Your task to perform on an android device: see creations saved in the google photos Image 0: 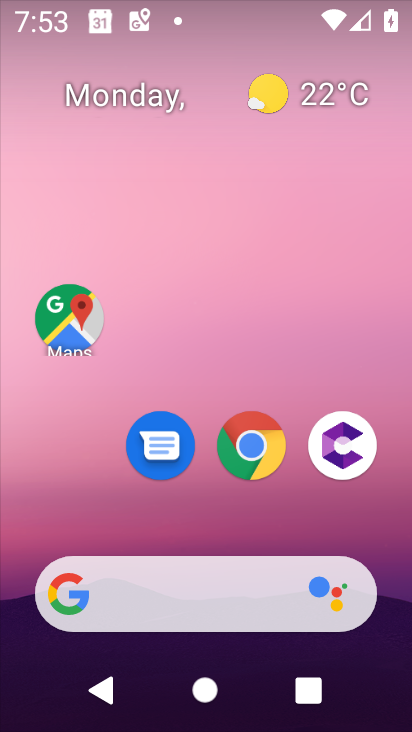
Step 0: press home button
Your task to perform on an android device: see creations saved in the google photos Image 1: 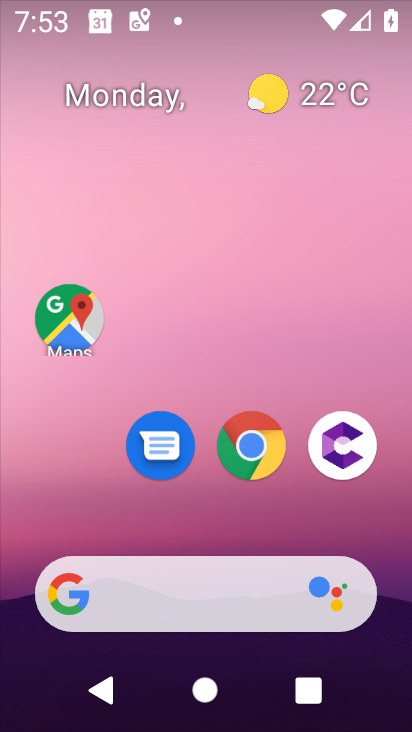
Step 1: drag from (199, 532) to (265, 3)
Your task to perform on an android device: see creations saved in the google photos Image 2: 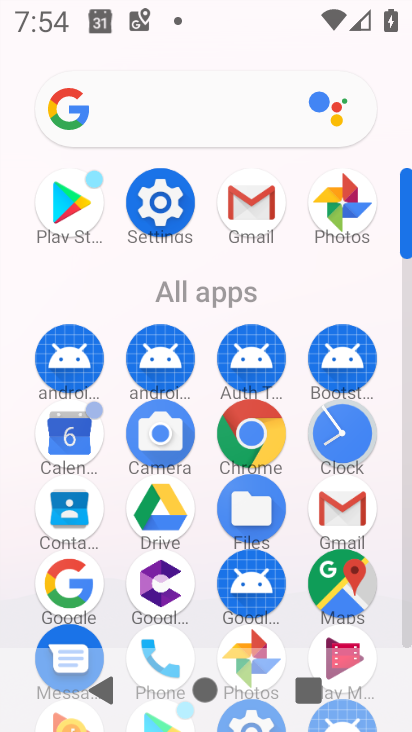
Step 2: click (336, 193)
Your task to perform on an android device: see creations saved in the google photos Image 3: 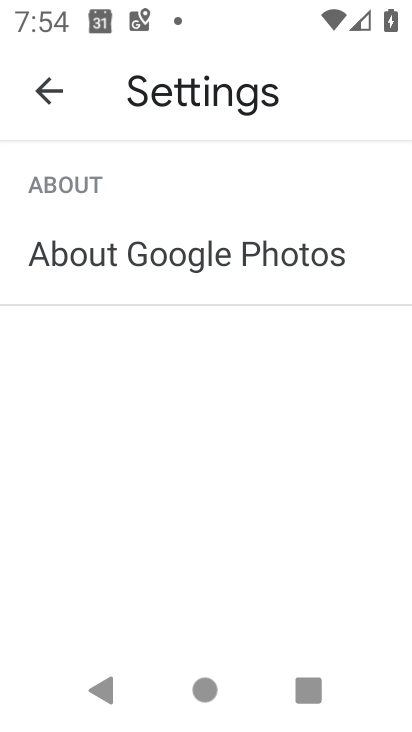
Step 3: click (38, 88)
Your task to perform on an android device: see creations saved in the google photos Image 4: 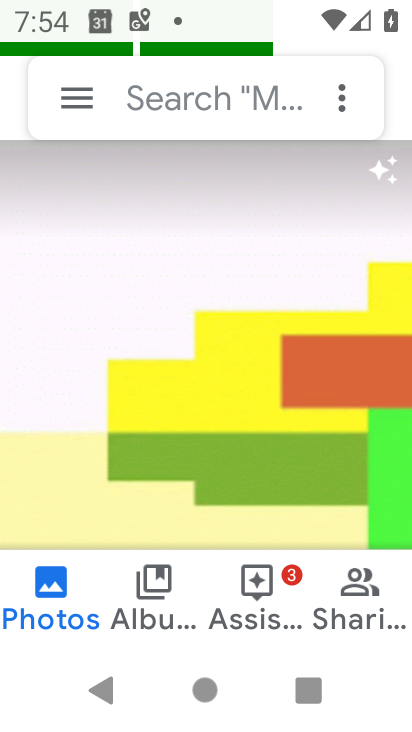
Step 4: click (205, 87)
Your task to perform on an android device: see creations saved in the google photos Image 5: 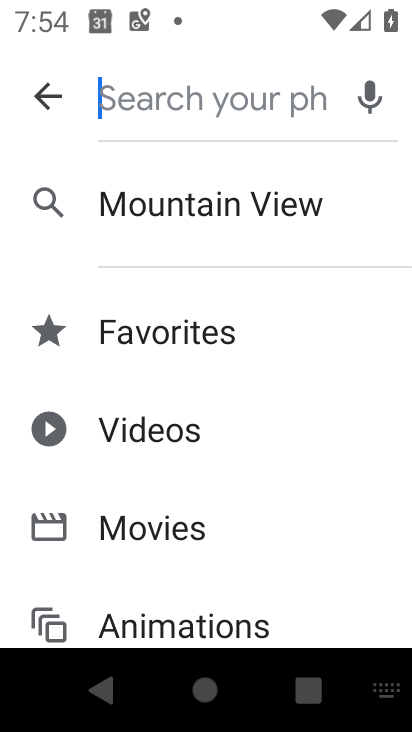
Step 5: drag from (271, 585) to (271, 302)
Your task to perform on an android device: see creations saved in the google photos Image 6: 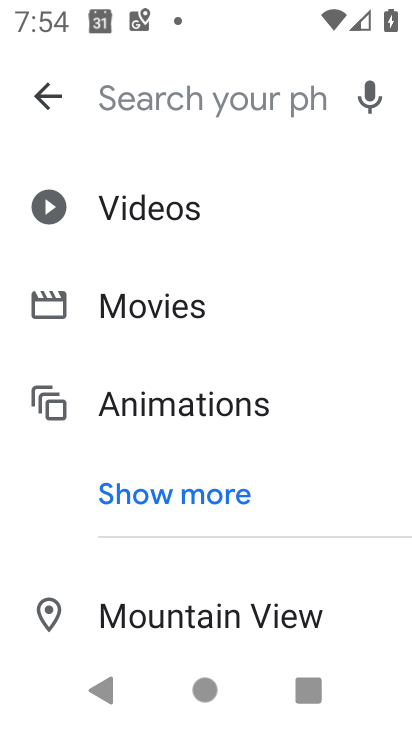
Step 6: click (164, 496)
Your task to perform on an android device: see creations saved in the google photos Image 7: 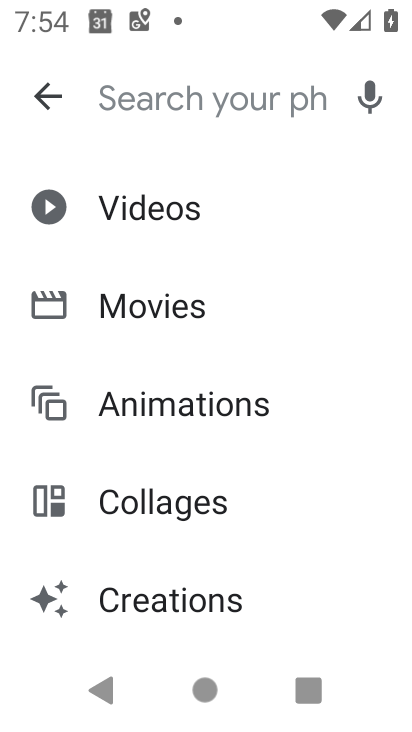
Step 7: drag from (333, 560) to (343, 314)
Your task to perform on an android device: see creations saved in the google photos Image 8: 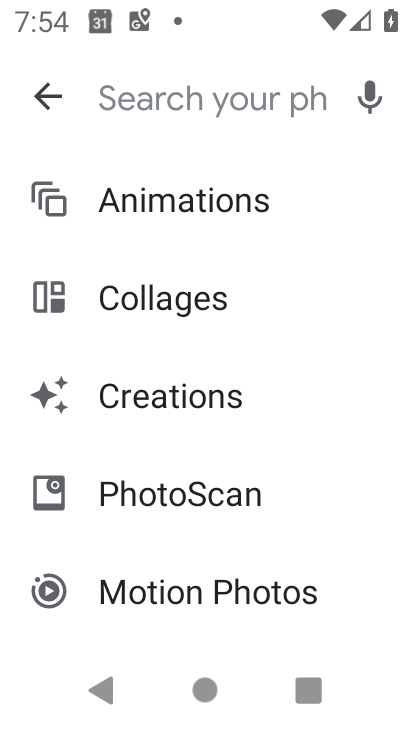
Step 8: click (162, 401)
Your task to perform on an android device: see creations saved in the google photos Image 9: 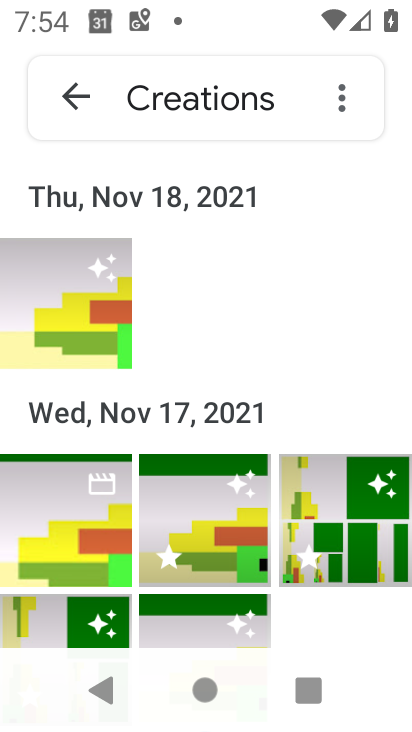
Step 9: task complete